Your task to perform on an android device: see creations saved in the google photos Image 0: 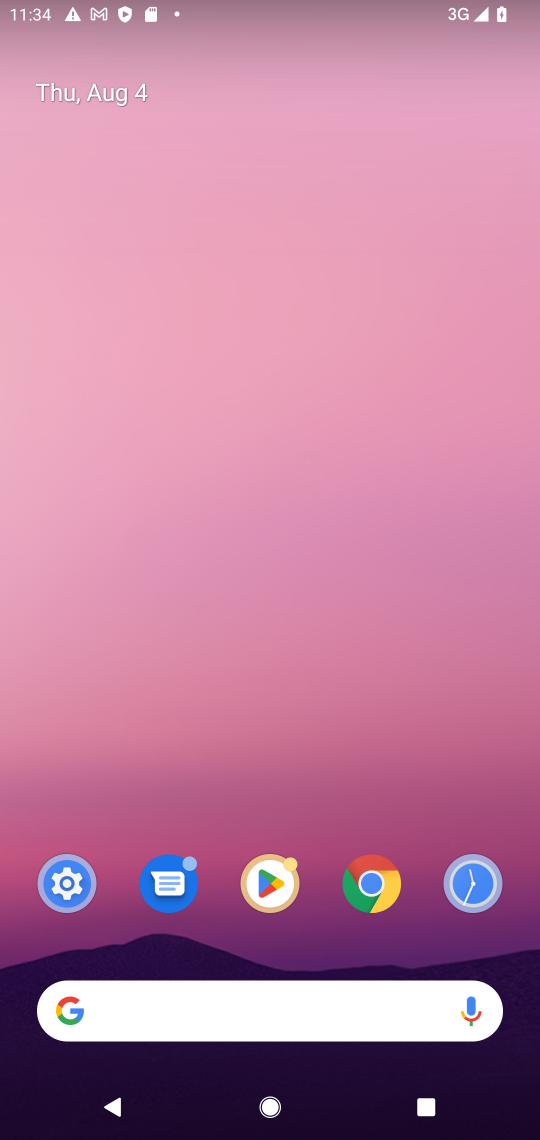
Step 0: drag from (344, 854) to (343, 210)
Your task to perform on an android device: see creations saved in the google photos Image 1: 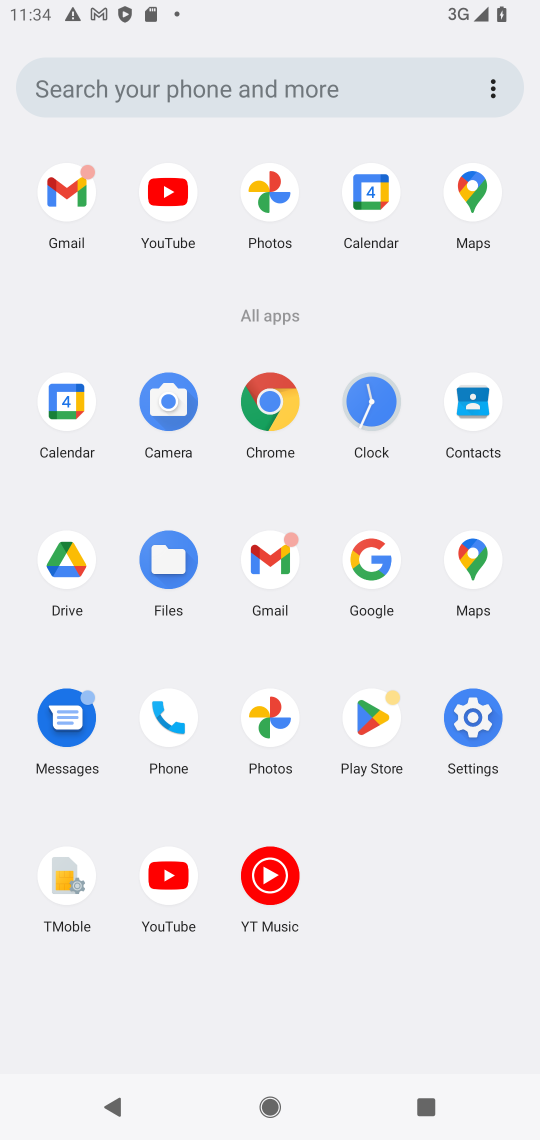
Step 1: click (257, 685)
Your task to perform on an android device: see creations saved in the google photos Image 2: 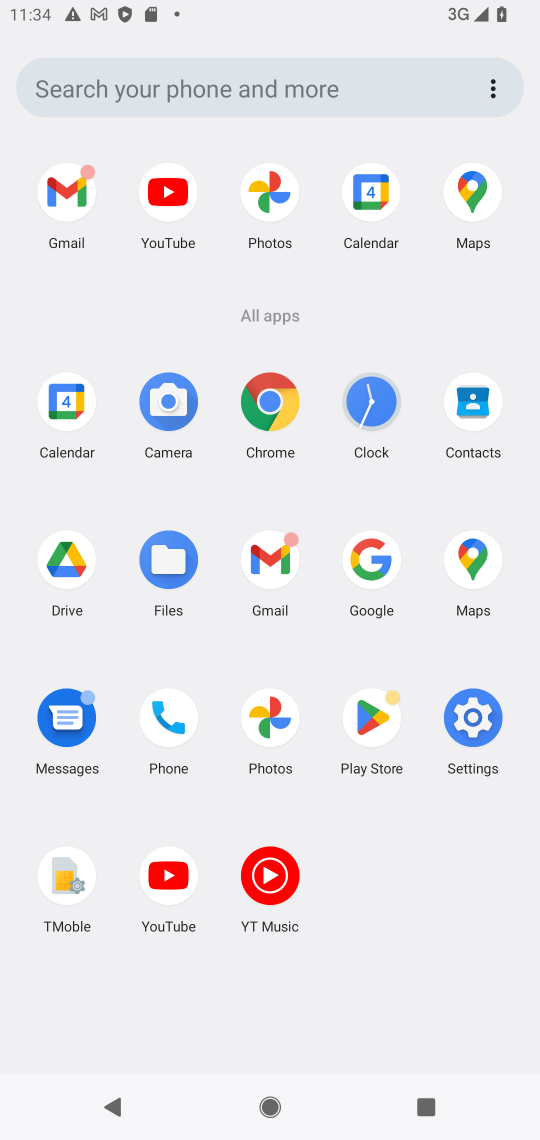
Step 2: click (261, 736)
Your task to perform on an android device: see creations saved in the google photos Image 3: 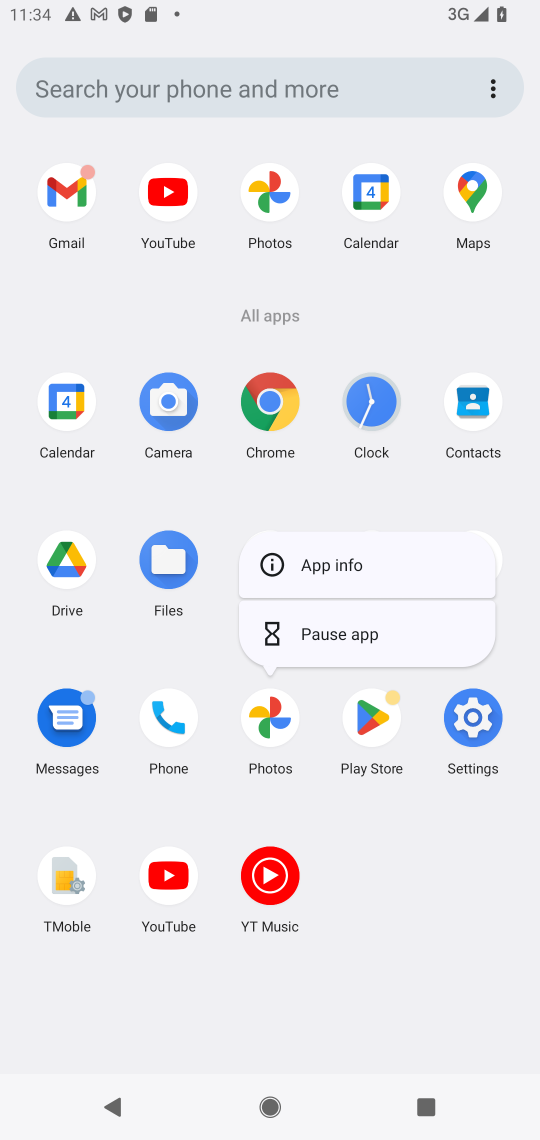
Step 3: click (319, 575)
Your task to perform on an android device: see creations saved in the google photos Image 4: 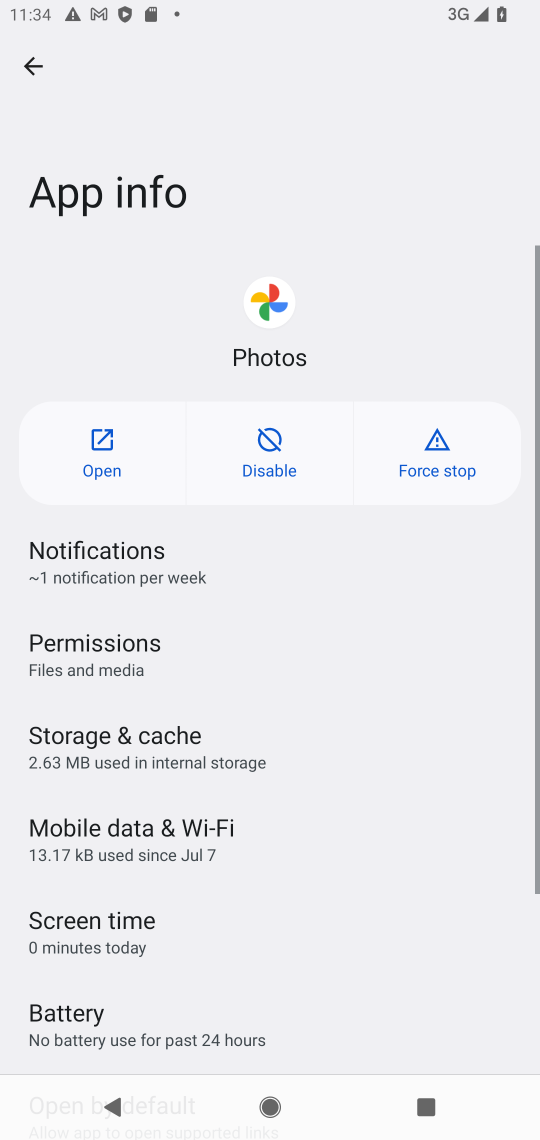
Step 4: click (90, 450)
Your task to perform on an android device: see creations saved in the google photos Image 5: 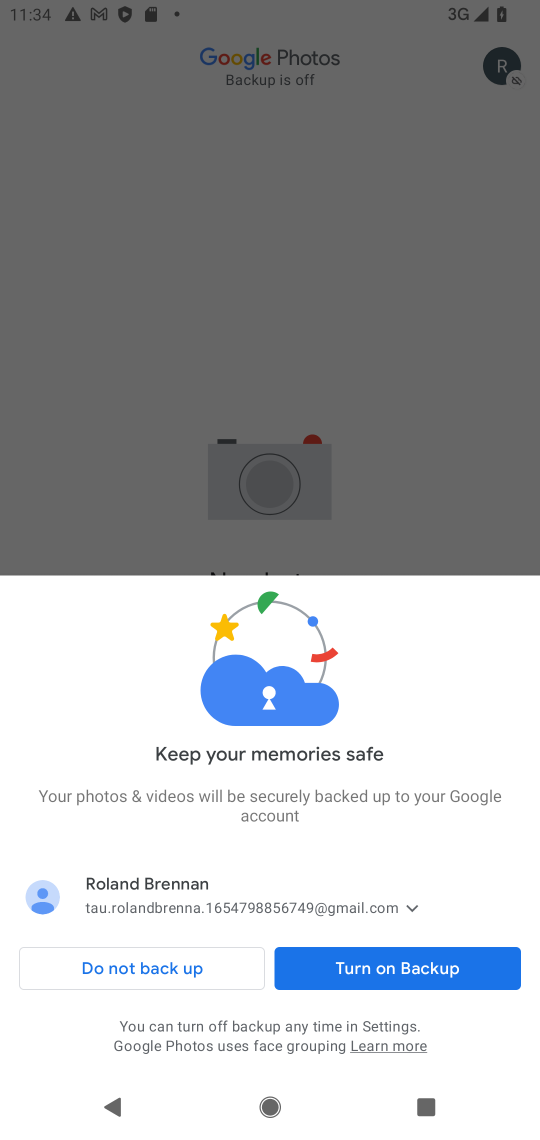
Step 5: drag from (321, 772) to (335, 663)
Your task to perform on an android device: see creations saved in the google photos Image 6: 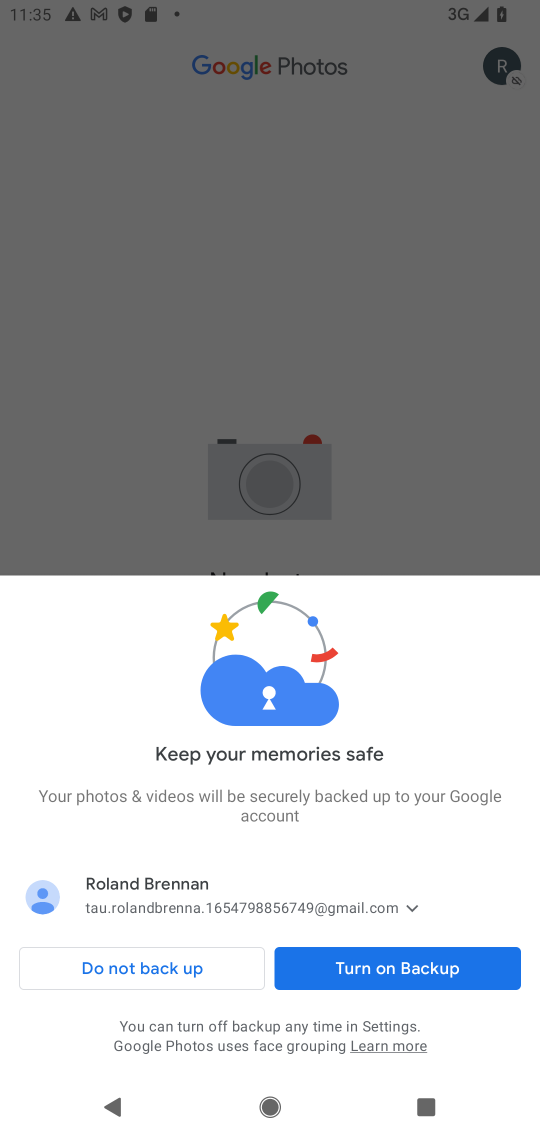
Step 6: drag from (213, 855) to (305, 240)
Your task to perform on an android device: see creations saved in the google photos Image 7: 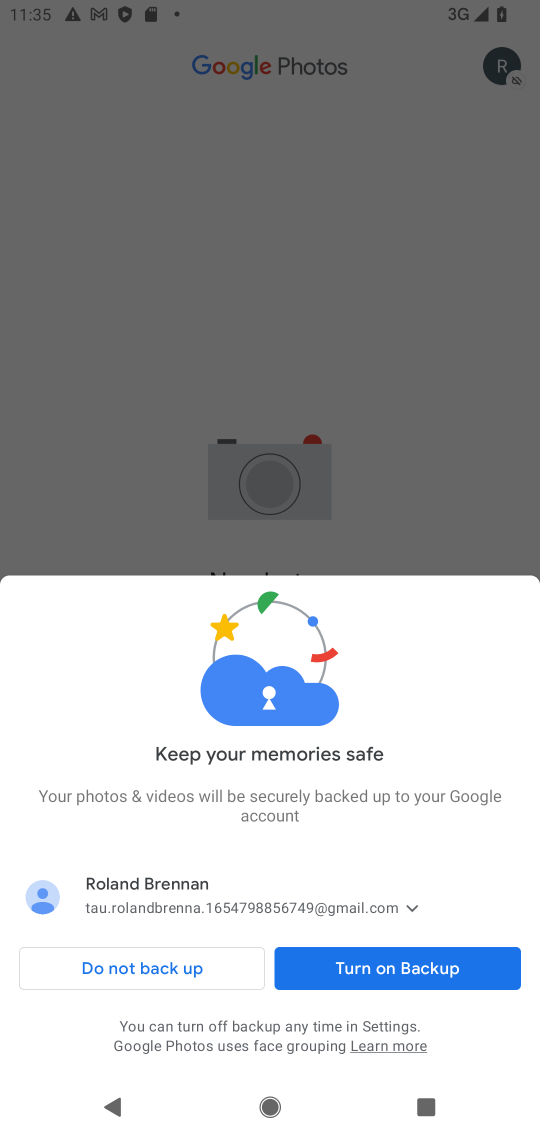
Step 7: drag from (322, 738) to (356, 445)
Your task to perform on an android device: see creations saved in the google photos Image 8: 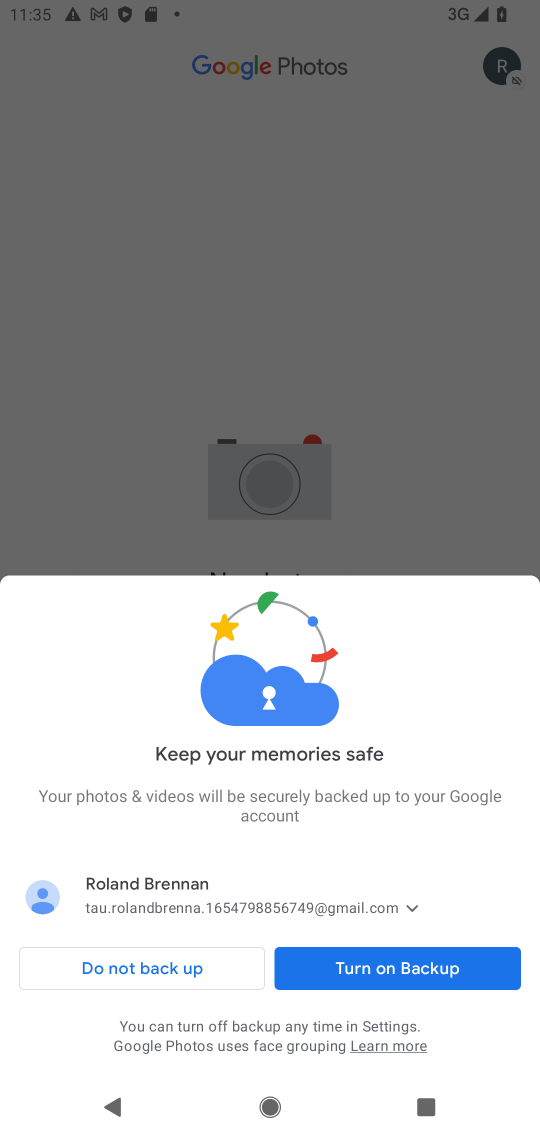
Step 8: click (274, 148)
Your task to perform on an android device: see creations saved in the google photos Image 9: 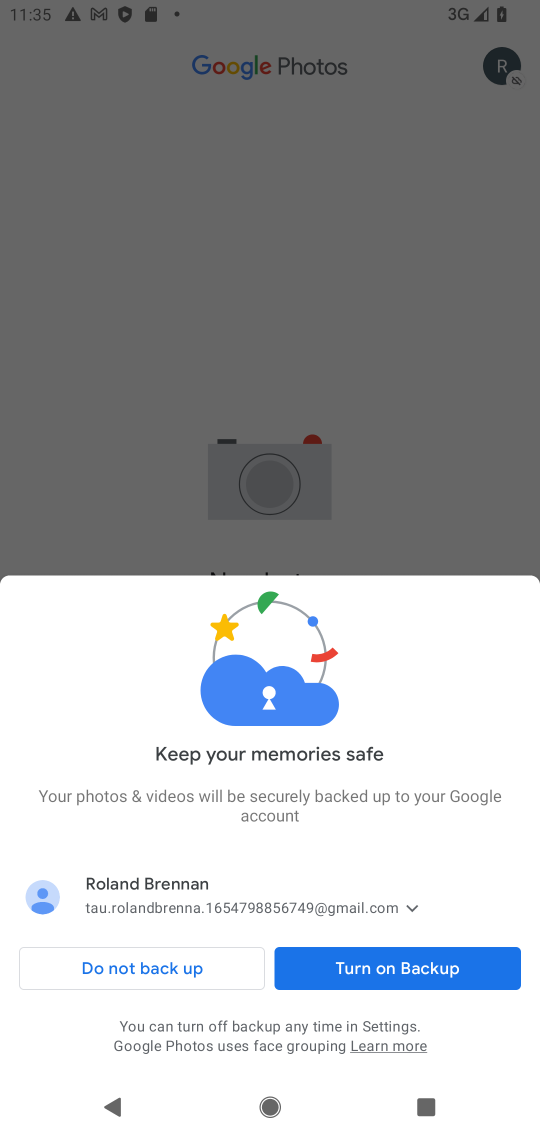
Step 9: press home button
Your task to perform on an android device: see creations saved in the google photos Image 10: 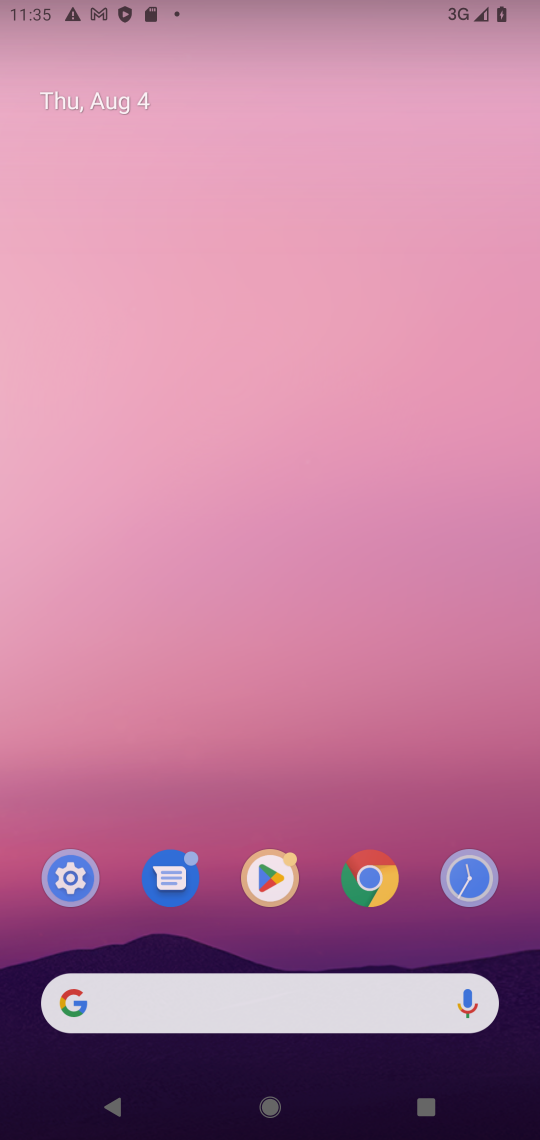
Step 10: drag from (184, 899) to (264, 291)
Your task to perform on an android device: see creations saved in the google photos Image 11: 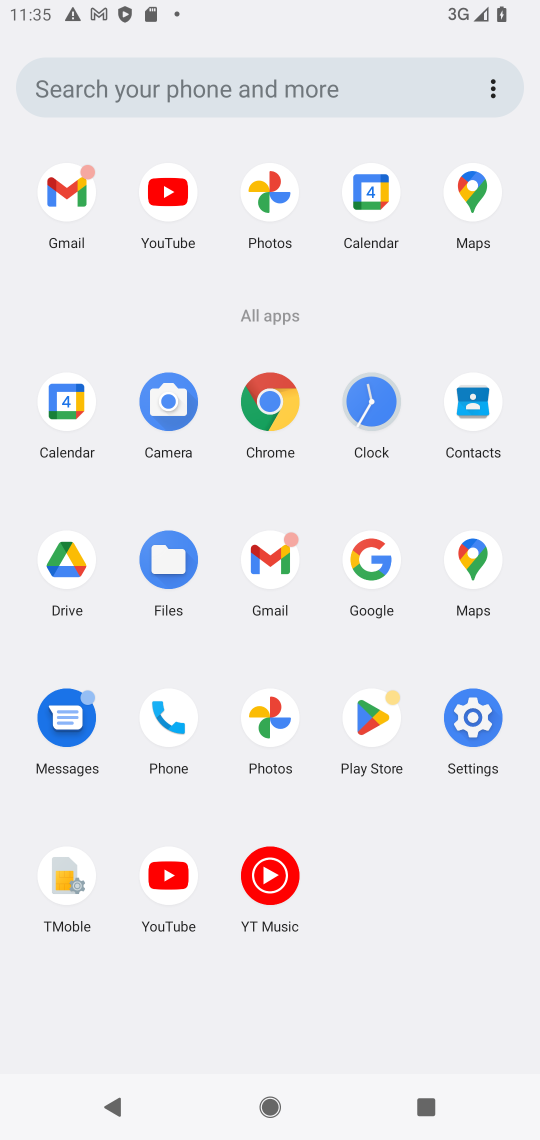
Step 11: click (274, 720)
Your task to perform on an android device: see creations saved in the google photos Image 12: 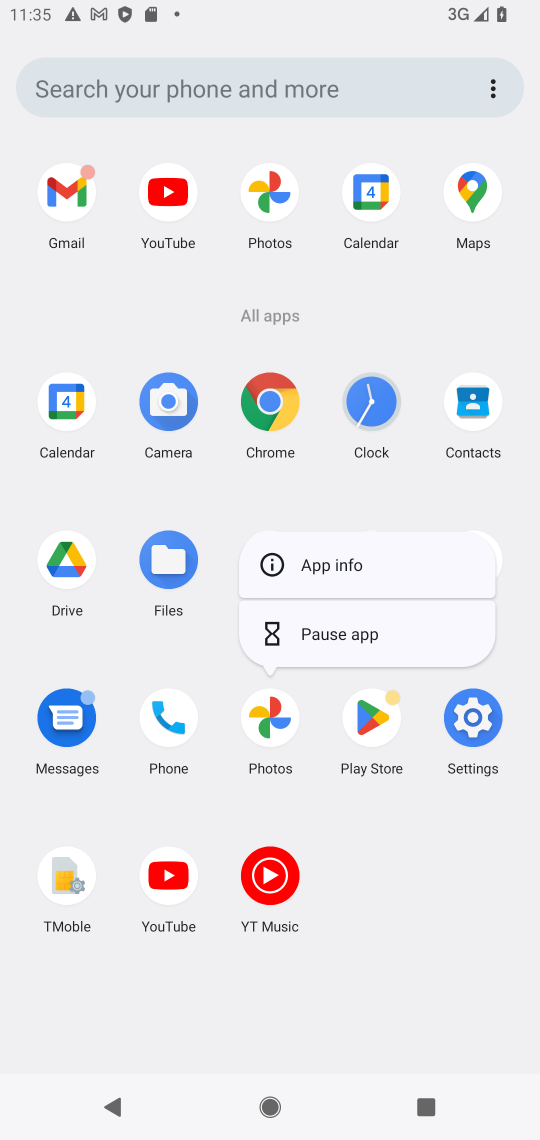
Step 12: click (336, 570)
Your task to perform on an android device: see creations saved in the google photos Image 13: 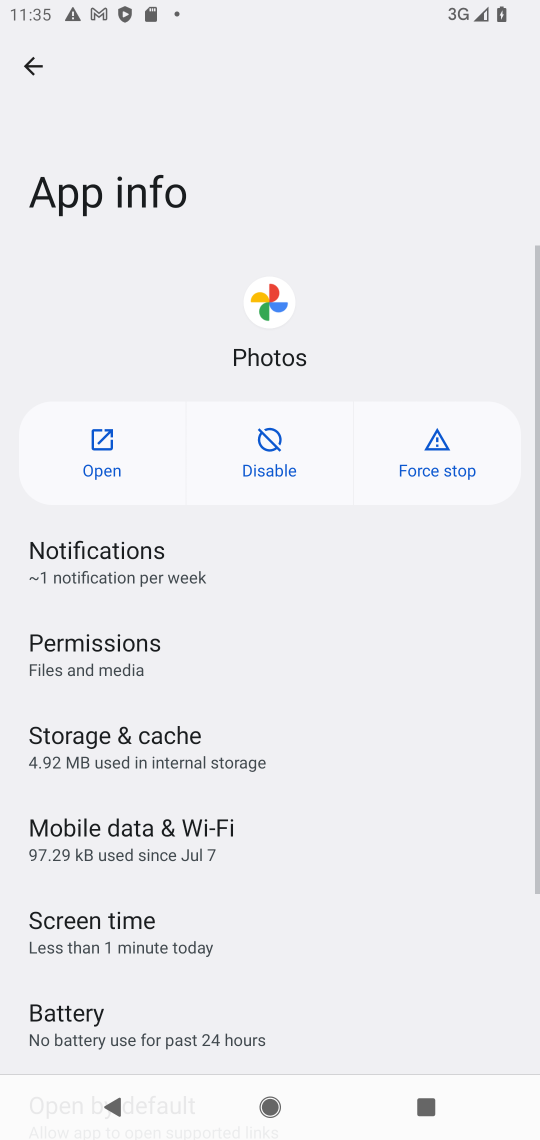
Step 13: click (93, 447)
Your task to perform on an android device: see creations saved in the google photos Image 14: 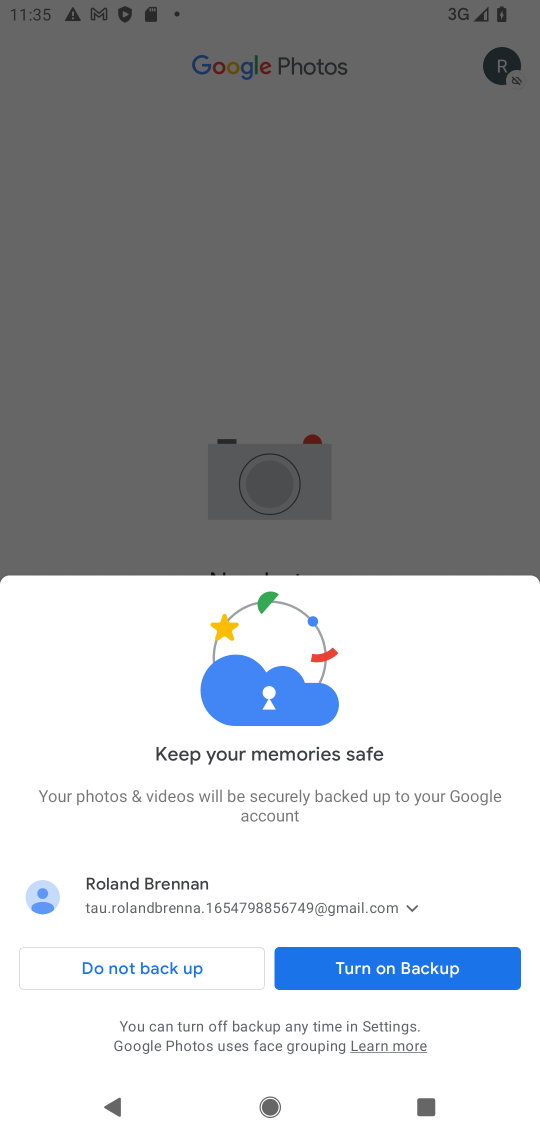
Step 14: click (414, 966)
Your task to perform on an android device: see creations saved in the google photos Image 15: 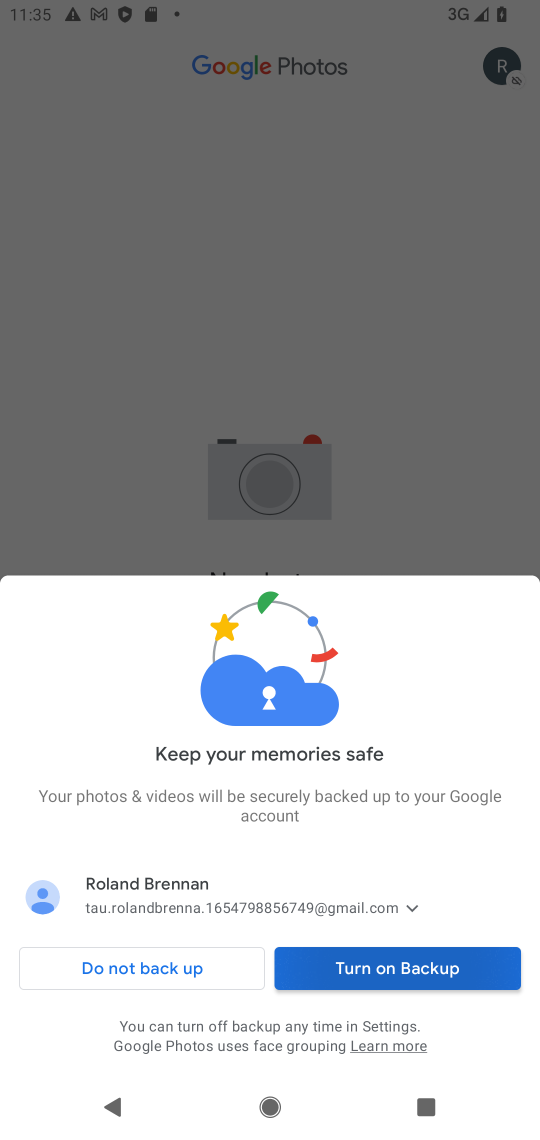
Step 15: click (412, 964)
Your task to perform on an android device: see creations saved in the google photos Image 16: 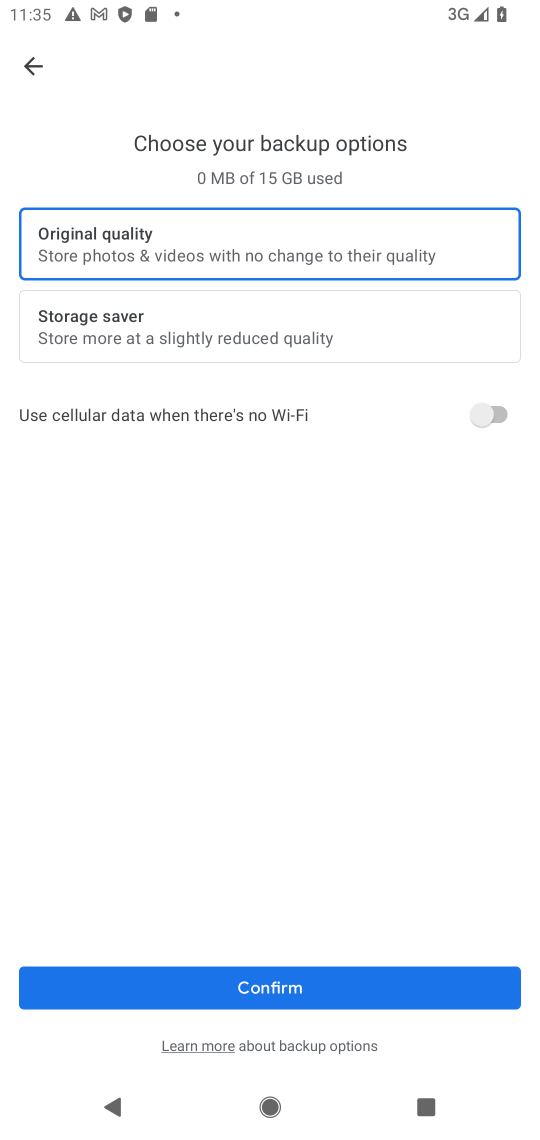
Step 16: click (409, 959)
Your task to perform on an android device: see creations saved in the google photos Image 17: 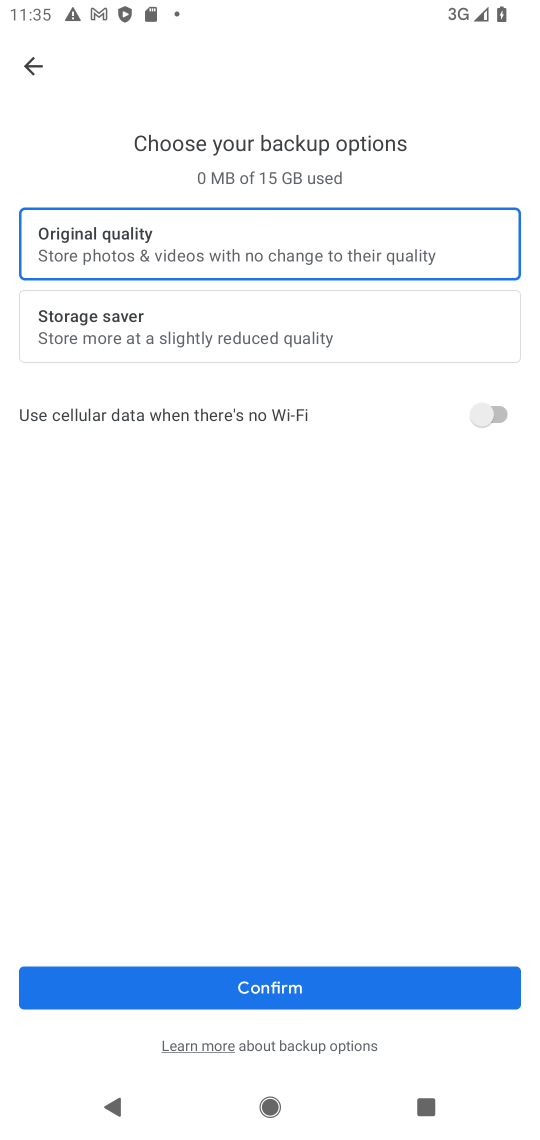
Step 17: click (377, 977)
Your task to perform on an android device: see creations saved in the google photos Image 18: 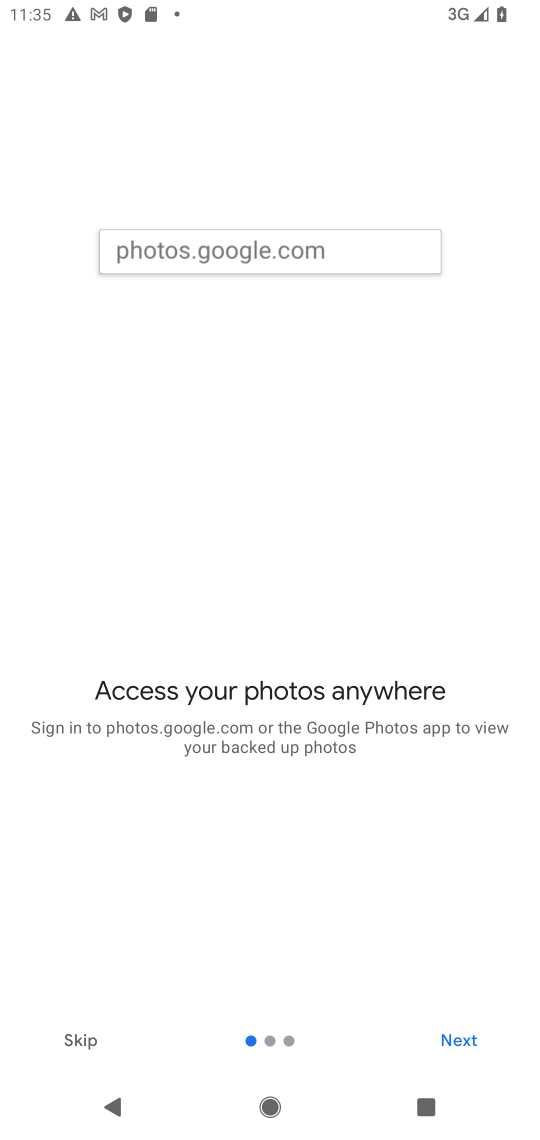
Step 18: click (98, 1048)
Your task to perform on an android device: see creations saved in the google photos Image 19: 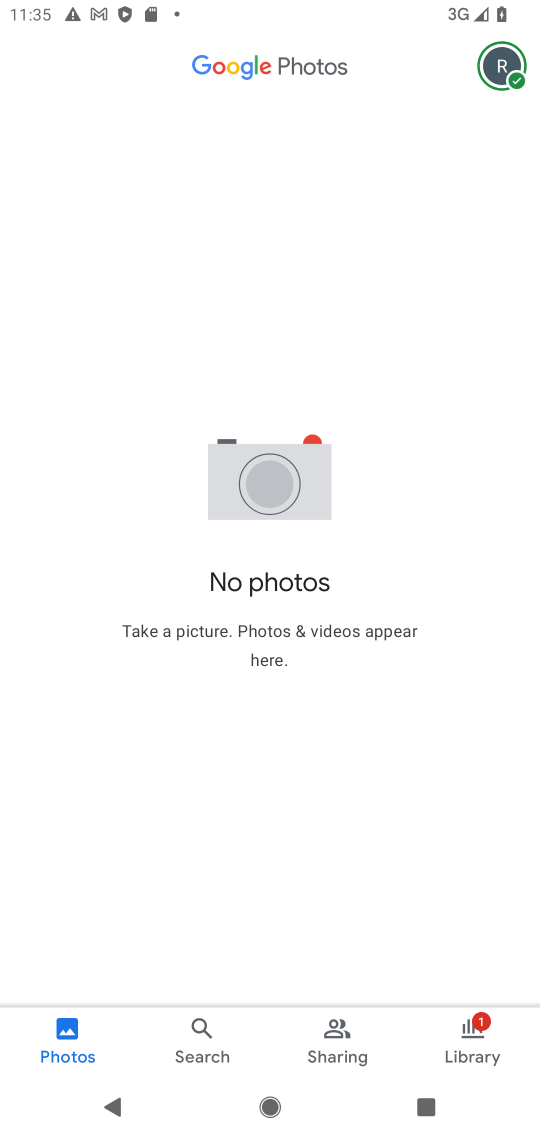
Step 19: drag from (309, 902) to (328, 553)
Your task to perform on an android device: see creations saved in the google photos Image 20: 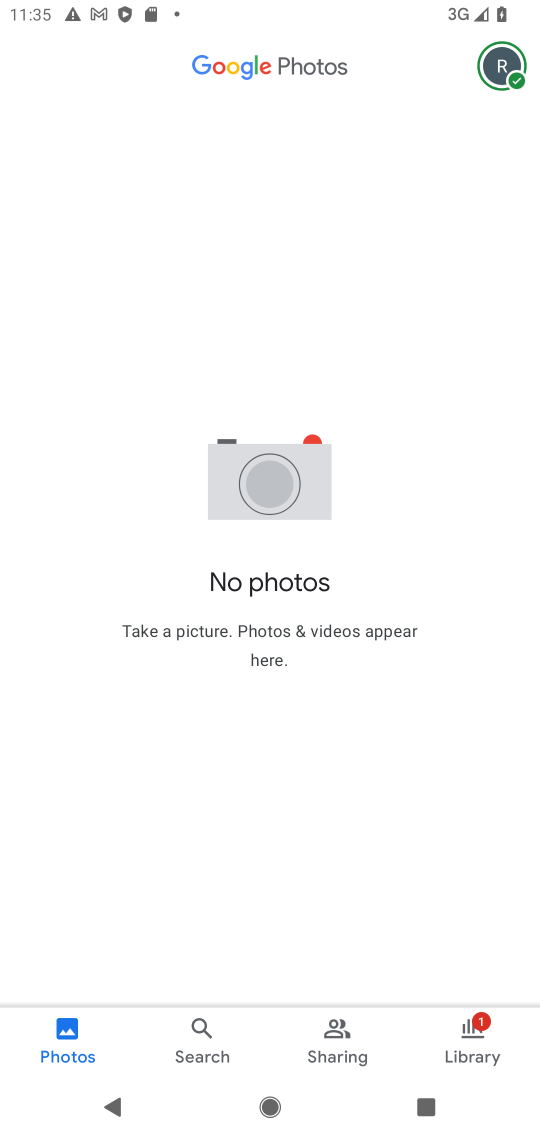
Step 20: drag from (384, 912) to (375, 722)
Your task to perform on an android device: see creations saved in the google photos Image 21: 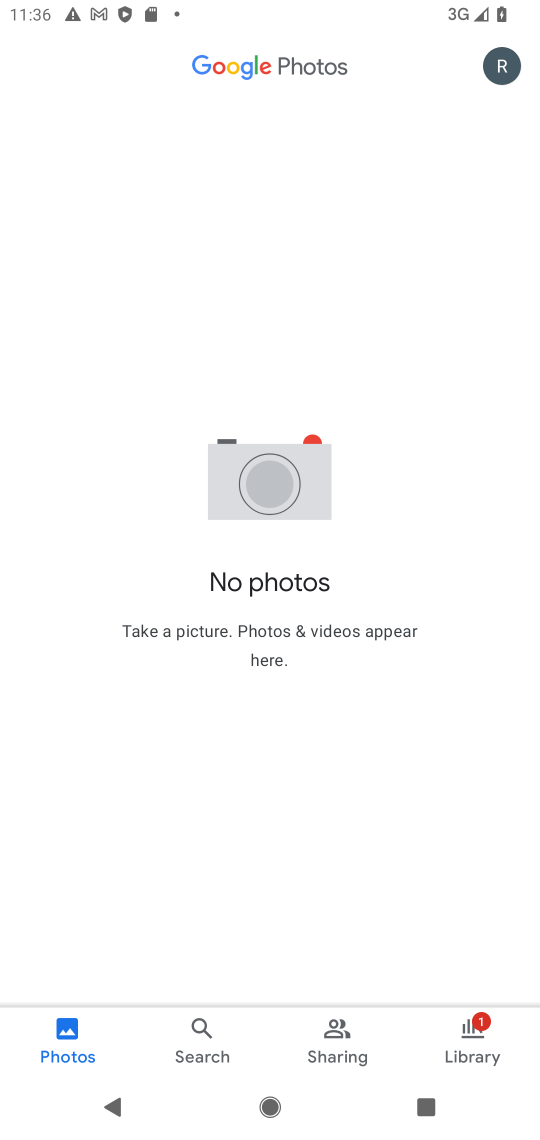
Step 21: drag from (267, 871) to (326, 699)
Your task to perform on an android device: see creations saved in the google photos Image 22: 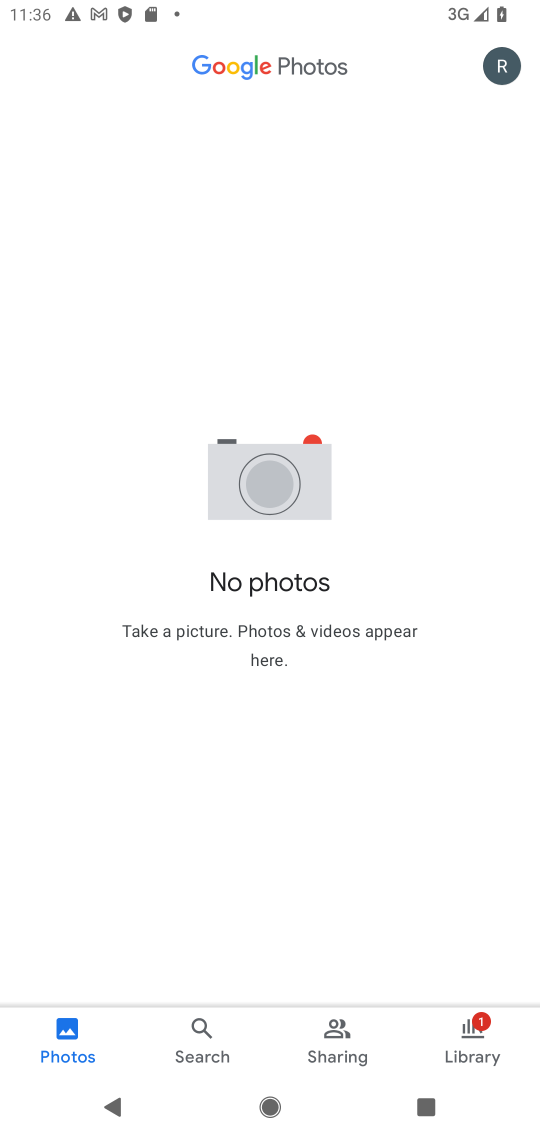
Step 22: drag from (289, 791) to (353, 420)
Your task to perform on an android device: see creations saved in the google photos Image 23: 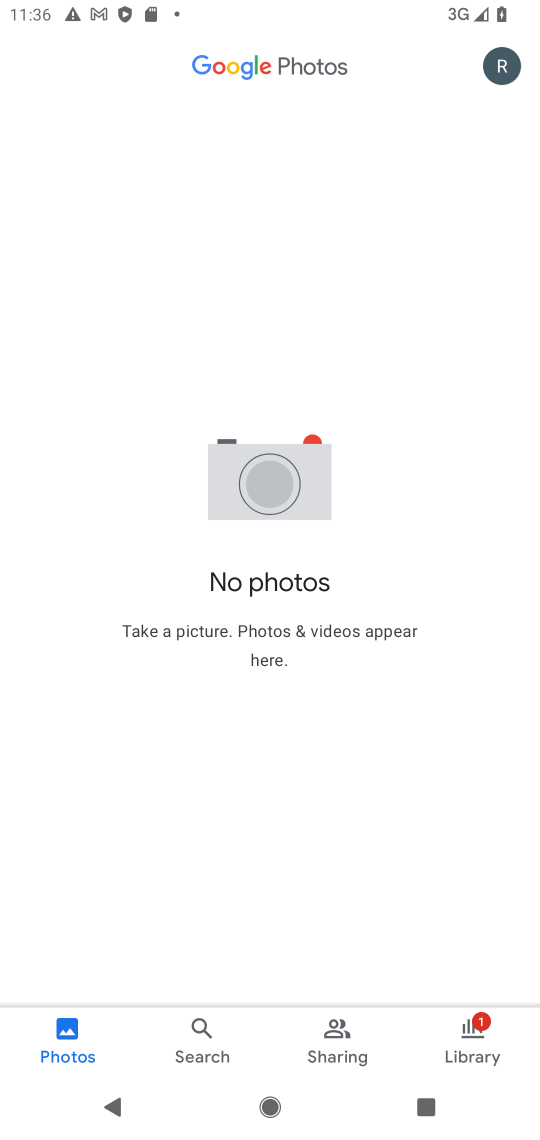
Step 23: drag from (352, 569) to (368, 839)
Your task to perform on an android device: see creations saved in the google photos Image 24: 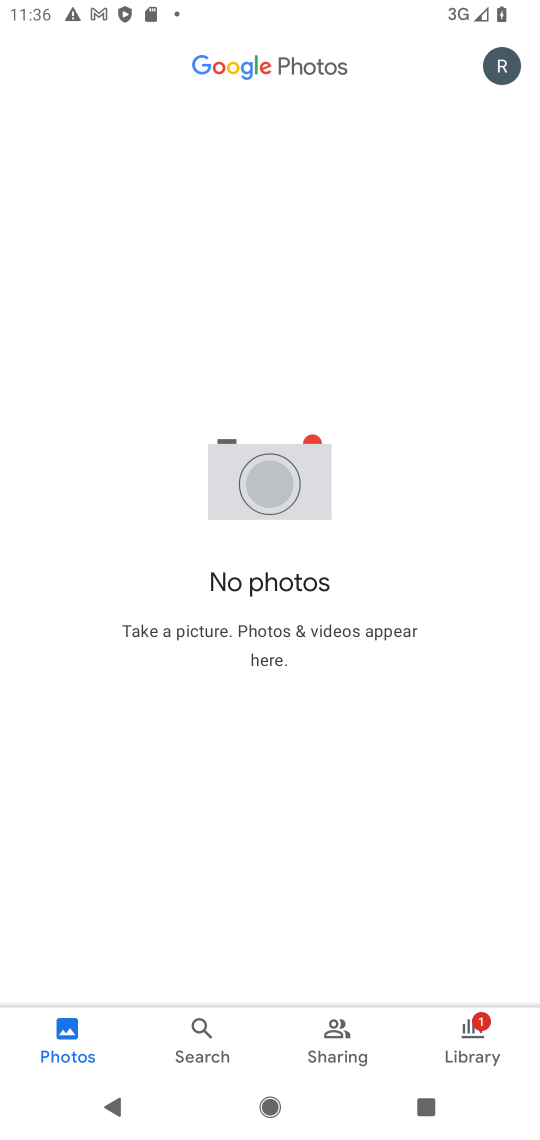
Step 24: click (191, 1042)
Your task to perform on an android device: see creations saved in the google photos Image 25: 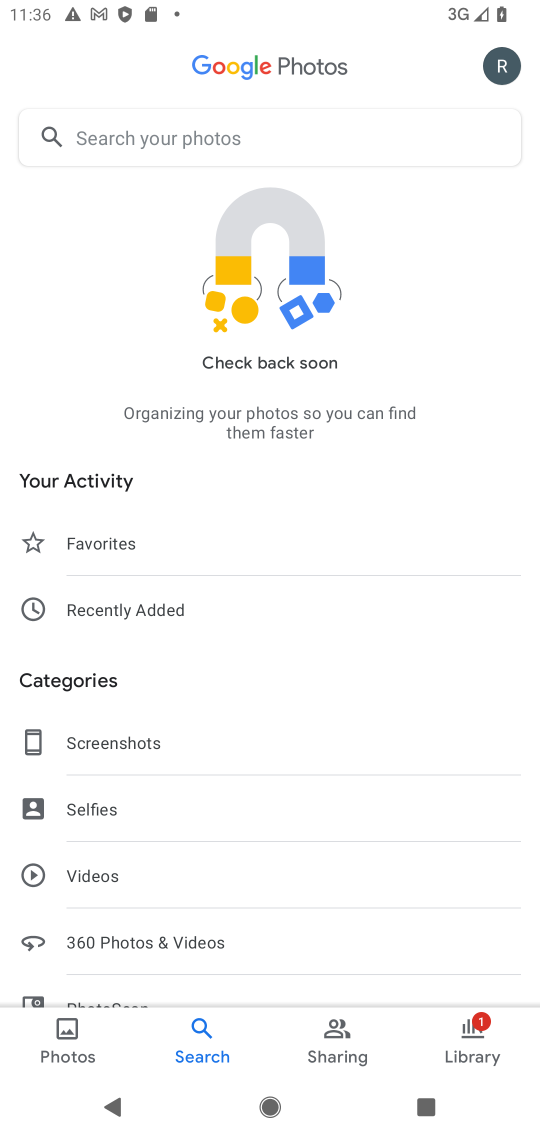
Step 25: drag from (186, 973) to (347, 177)
Your task to perform on an android device: see creations saved in the google photos Image 26: 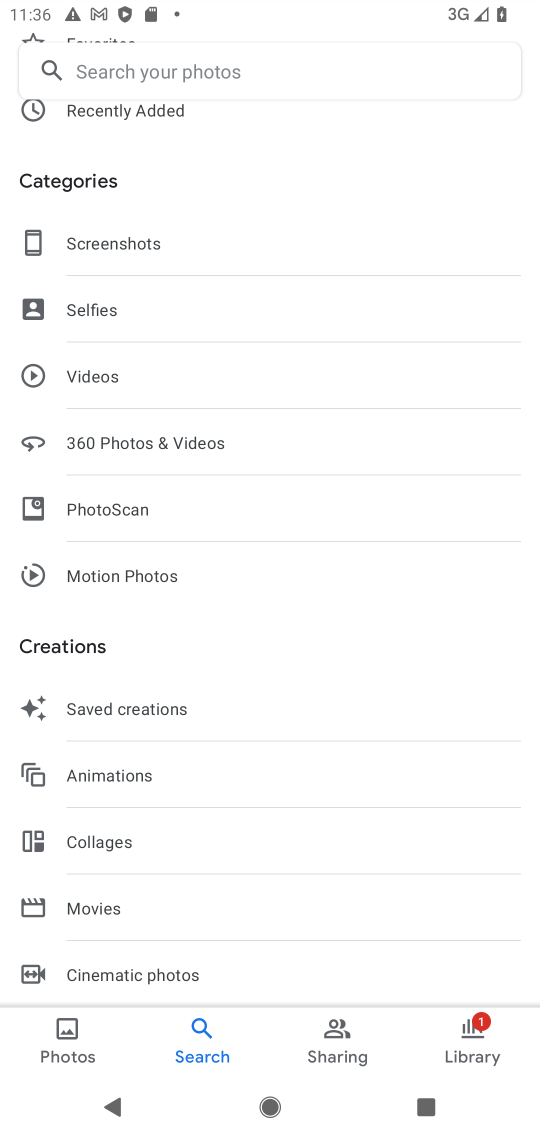
Step 26: drag from (160, 910) to (226, 721)
Your task to perform on an android device: see creations saved in the google photos Image 27: 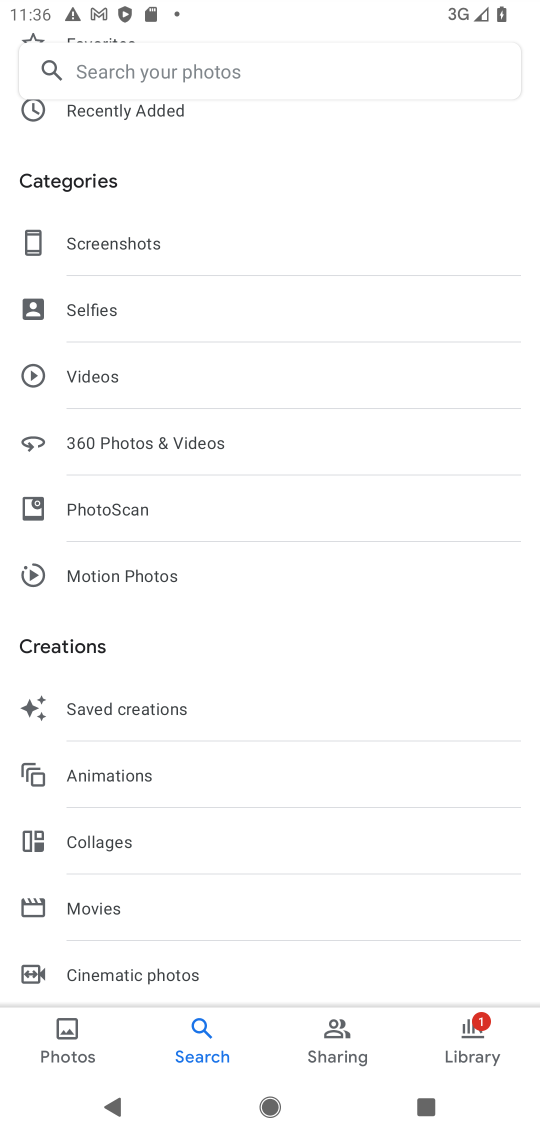
Step 27: click (139, 721)
Your task to perform on an android device: see creations saved in the google photos Image 28: 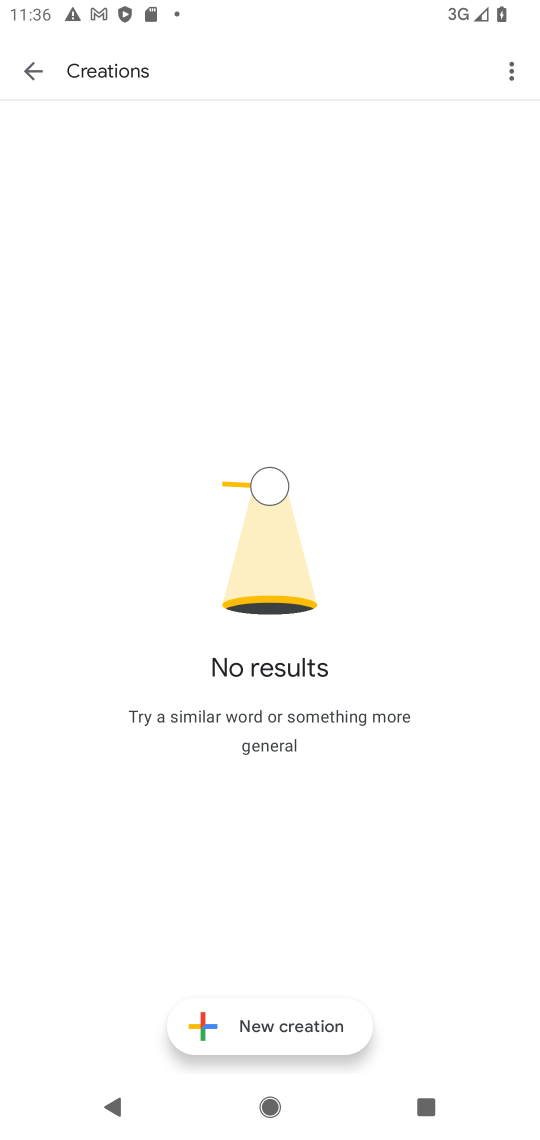
Step 28: task complete